Your task to perform on an android device: Open sound settings Image 0: 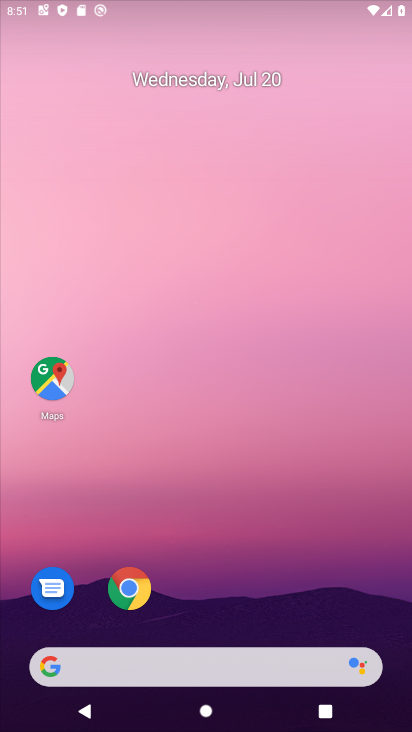
Step 0: drag from (204, 604) to (275, 26)
Your task to perform on an android device: Open sound settings Image 1: 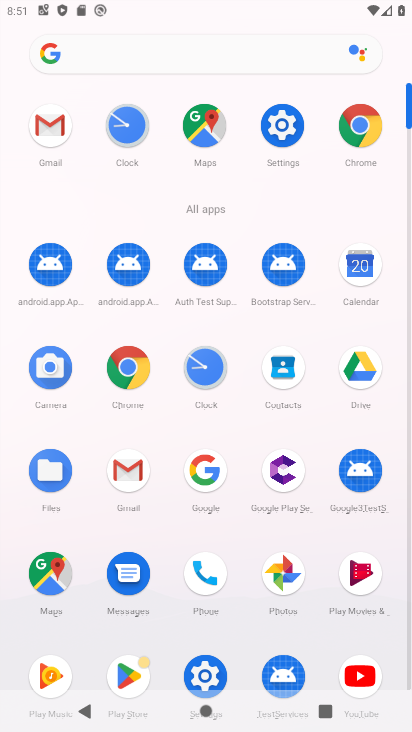
Step 1: click (284, 131)
Your task to perform on an android device: Open sound settings Image 2: 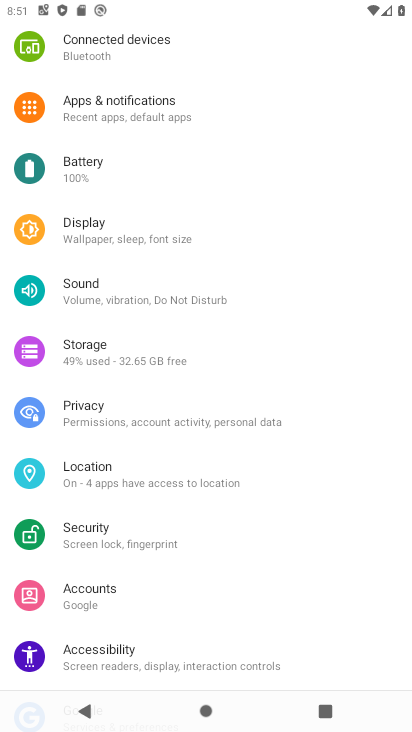
Step 2: click (56, 290)
Your task to perform on an android device: Open sound settings Image 3: 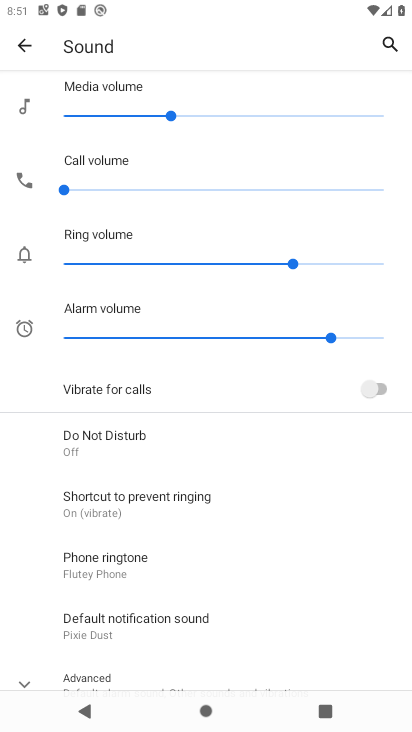
Step 3: task complete